Your task to perform on an android device: Go to location settings Image 0: 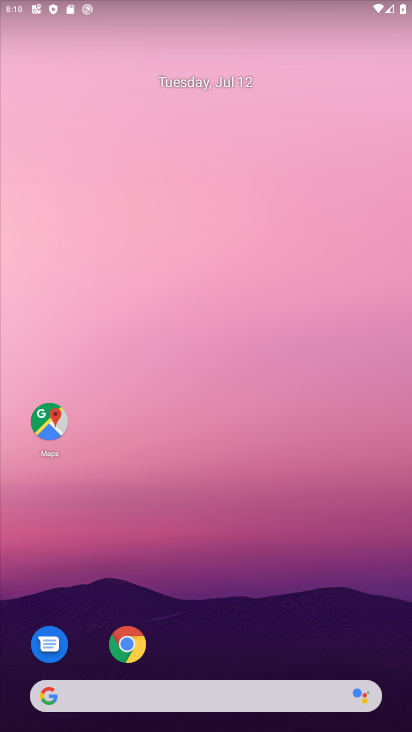
Step 0: drag from (229, 462) to (244, 294)
Your task to perform on an android device: Go to location settings Image 1: 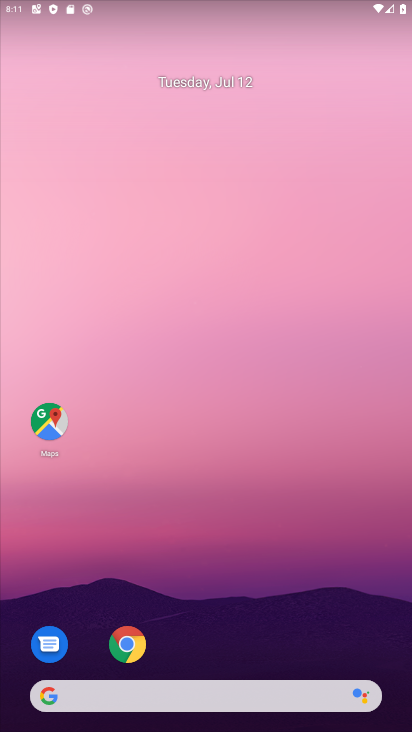
Step 1: drag from (209, 504) to (236, 222)
Your task to perform on an android device: Go to location settings Image 2: 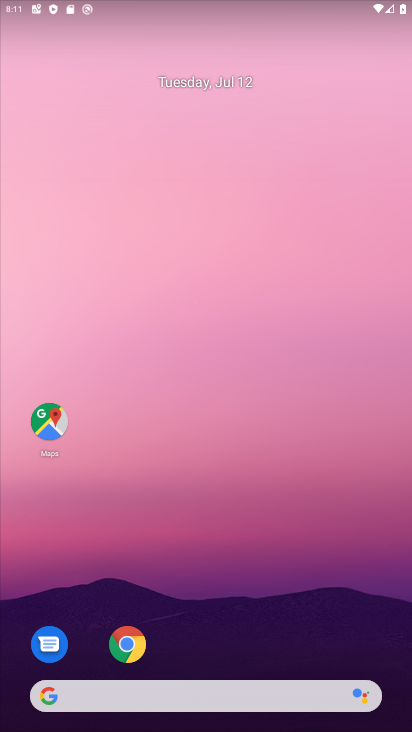
Step 2: drag from (162, 565) to (279, 4)
Your task to perform on an android device: Go to location settings Image 3: 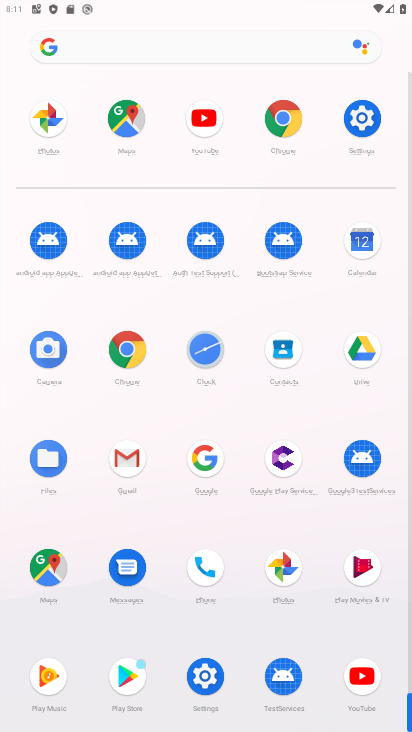
Step 3: drag from (160, 632) to (245, 207)
Your task to perform on an android device: Go to location settings Image 4: 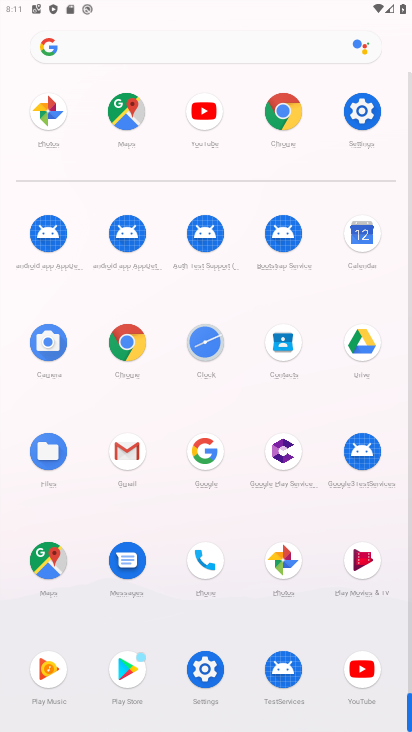
Step 4: click (198, 669)
Your task to perform on an android device: Go to location settings Image 5: 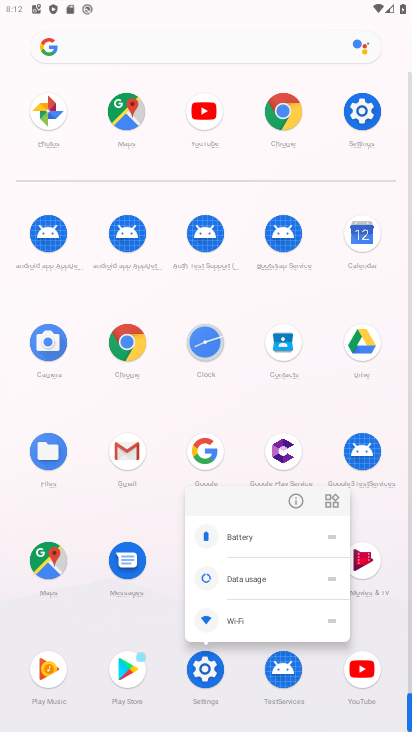
Step 5: click (293, 498)
Your task to perform on an android device: Go to location settings Image 6: 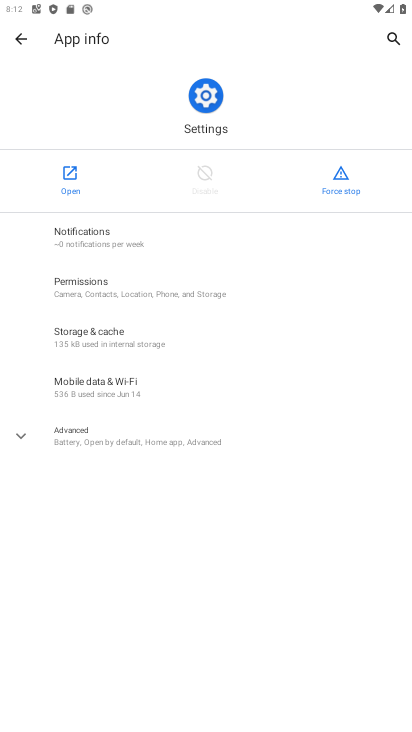
Step 6: click (66, 193)
Your task to perform on an android device: Go to location settings Image 7: 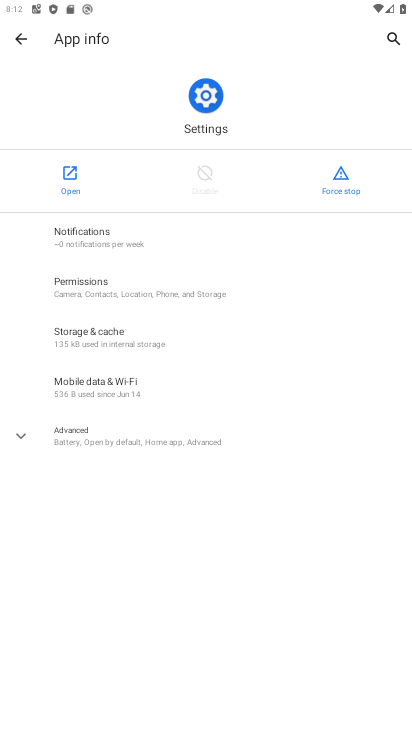
Step 7: click (67, 193)
Your task to perform on an android device: Go to location settings Image 8: 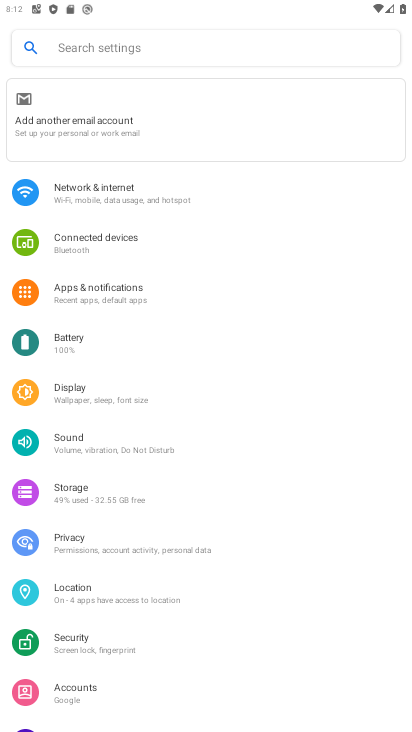
Step 8: click (98, 592)
Your task to perform on an android device: Go to location settings Image 9: 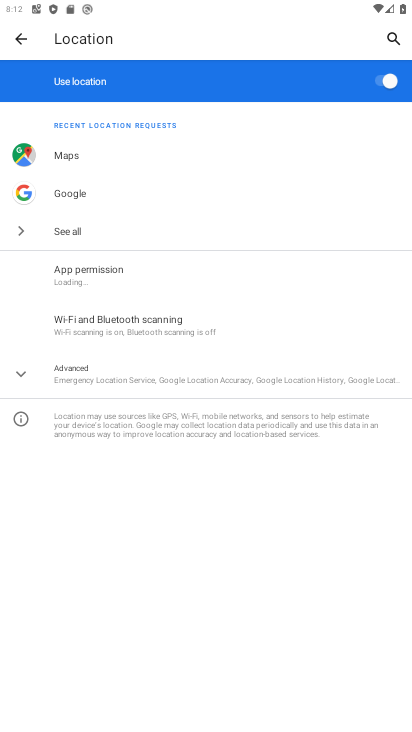
Step 9: click (100, 348)
Your task to perform on an android device: Go to location settings Image 10: 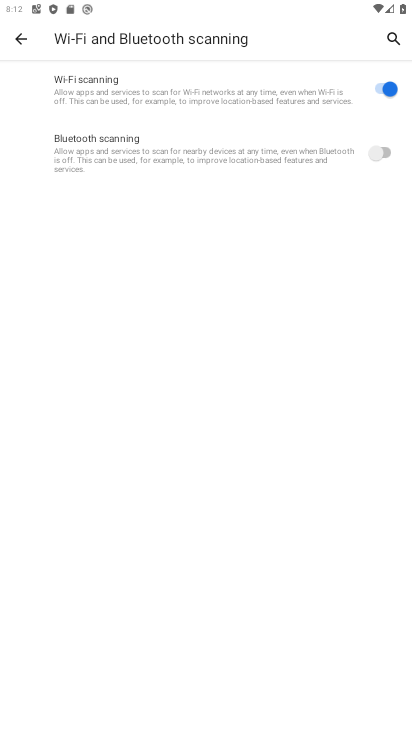
Step 10: task complete